Your task to perform on an android device: Open the phone app and click the voicemail tab. Image 0: 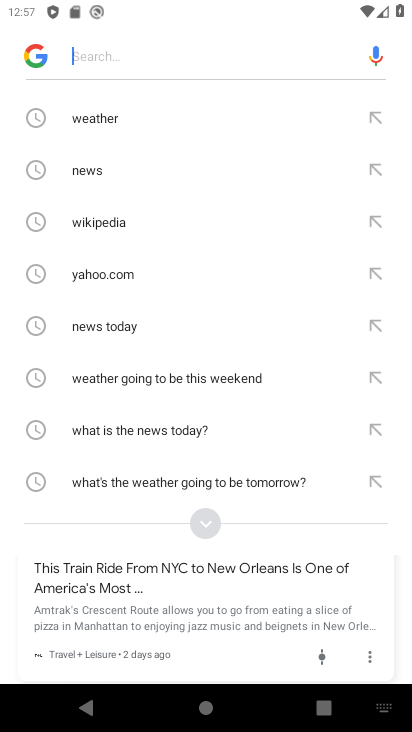
Step 0: press home button
Your task to perform on an android device: Open the phone app and click the voicemail tab. Image 1: 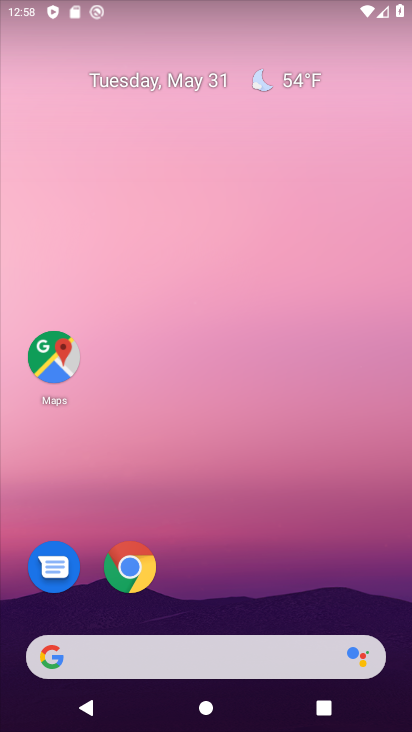
Step 1: drag from (280, 548) to (255, 118)
Your task to perform on an android device: Open the phone app and click the voicemail tab. Image 2: 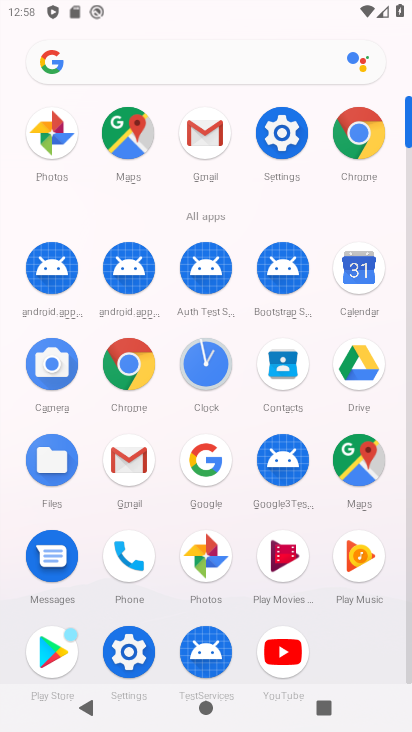
Step 2: click (132, 556)
Your task to perform on an android device: Open the phone app and click the voicemail tab. Image 3: 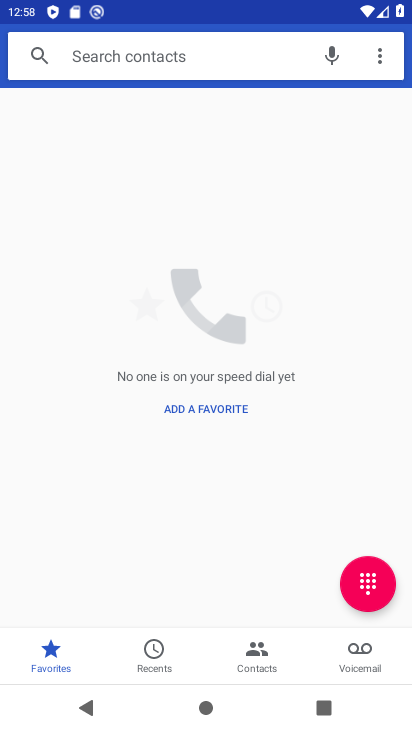
Step 3: click (354, 647)
Your task to perform on an android device: Open the phone app and click the voicemail tab. Image 4: 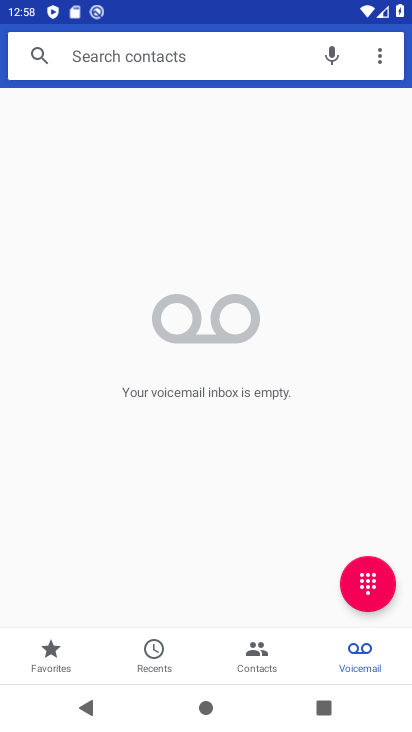
Step 4: task complete